Your task to perform on an android device: turn on javascript in the chrome app Image 0: 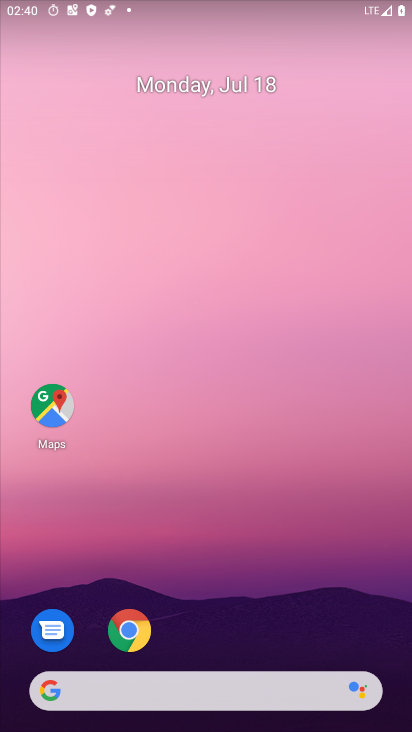
Step 0: click (129, 633)
Your task to perform on an android device: turn on javascript in the chrome app Image 1: 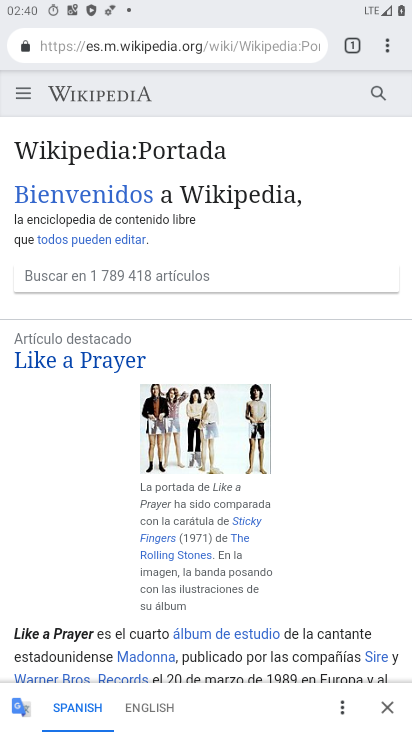
Step 1: click (396, 46)
Your task to perform on an android device: turn on javascript in the chrome app Image 2: 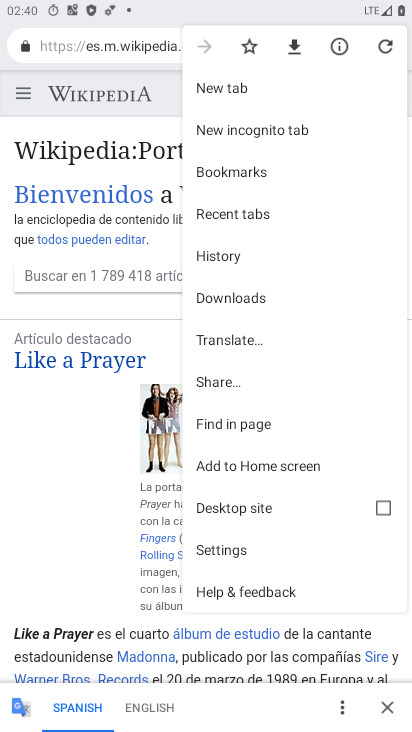
Step 2: click (231, 535)
Your task to perform on an android device: turn on javascript in the chrome app Image 3: 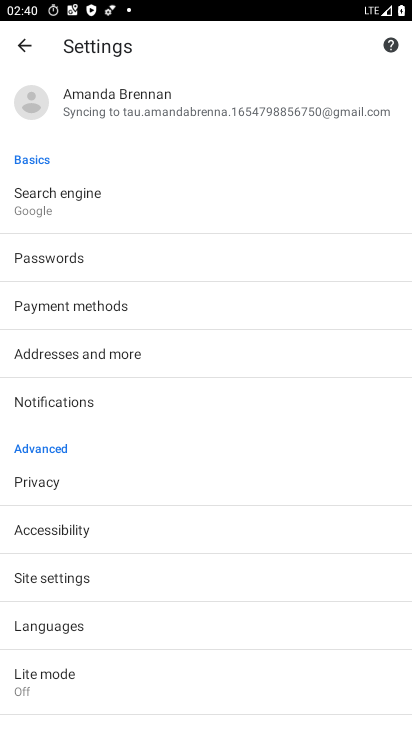
Step 3: drag from (153, 617) to (325, 9)
Your task to perform on an android device: turn on javascript in the chrome app Image 4: 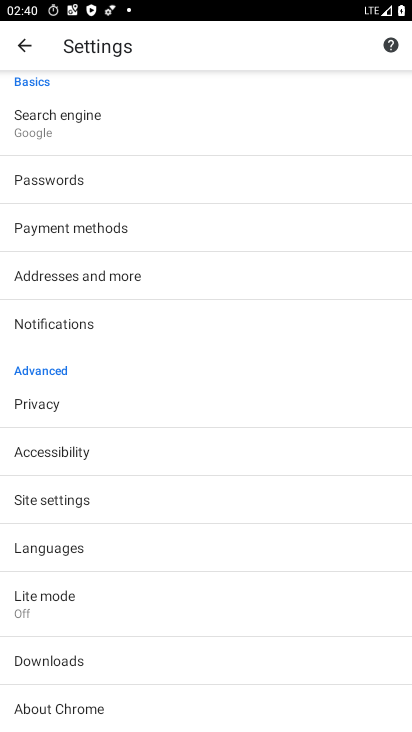
Step 4: click (110, 513)
Your task to perform on an android device: turn on javascript in the chrome app Image 5: 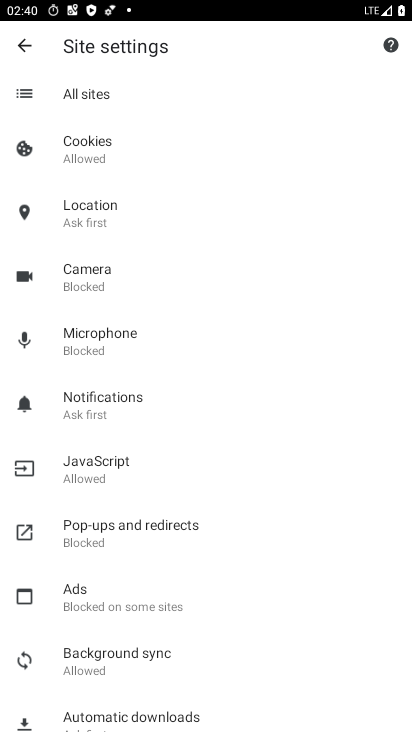
Step 5: click (121, 494)
Your task to perform on an android device: turn on javascript in the chrome app Image 6: 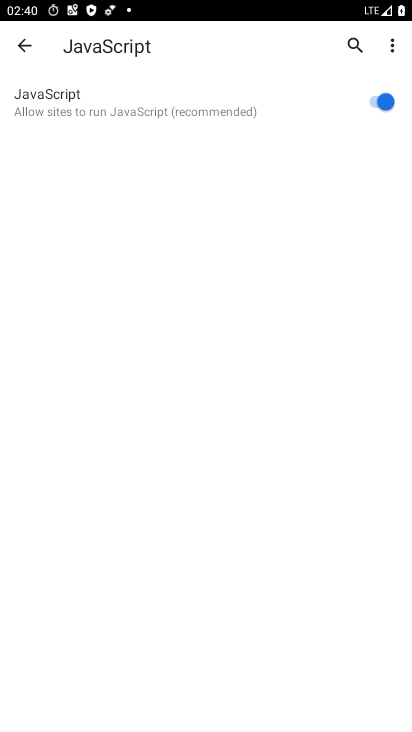
Step 6: task complete